Your task to perform on an android device: turn off priority inbox in the gmail app Image 0: 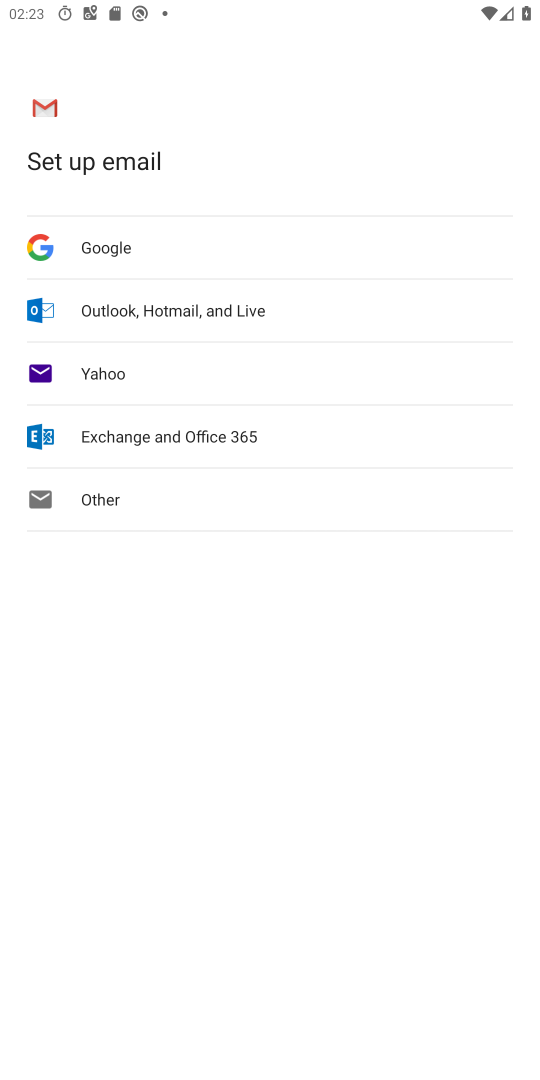
Step 0: press home button
Your task to perform on an android device: turn off priority inbox in the gmail app Image 1: 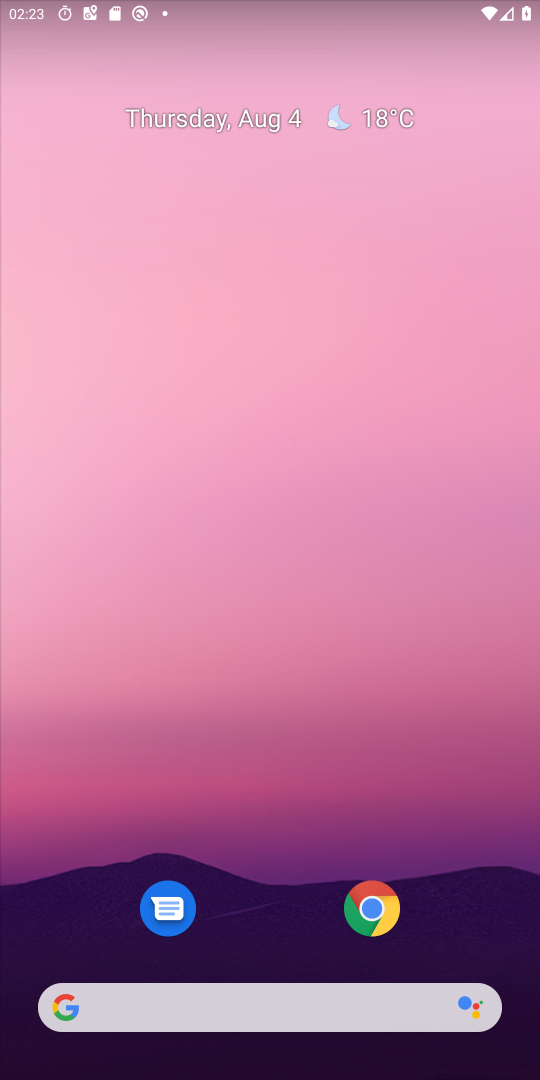
Step 1: drag from (331, 1025) to (317, 103)
Your task to perform on an android device: turn off priority inbox in the gmail app Image 2: 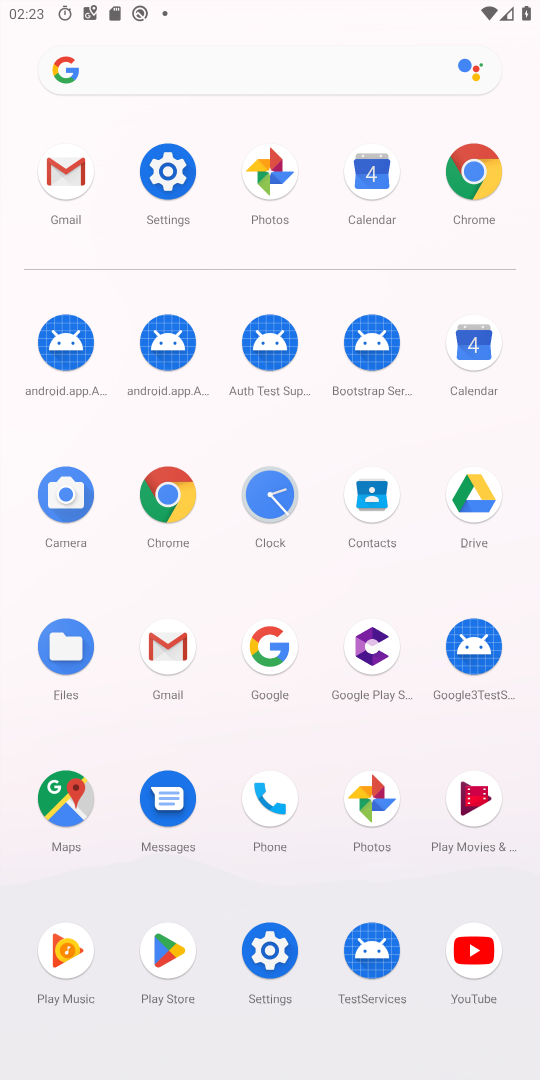
Step 2: click (160, 652)
Your task to perform on an android device: turn off priority inbox in the gmail app Image 3: 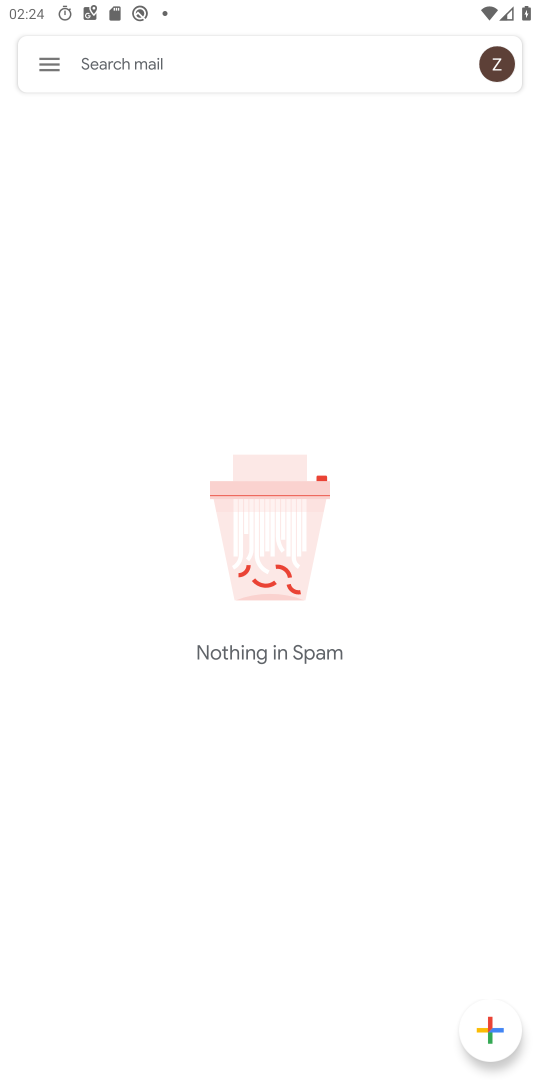
Step 3: click (51, 69)
Your task to perform on an android device: turn off priority inbox in the gmail app Image 4: 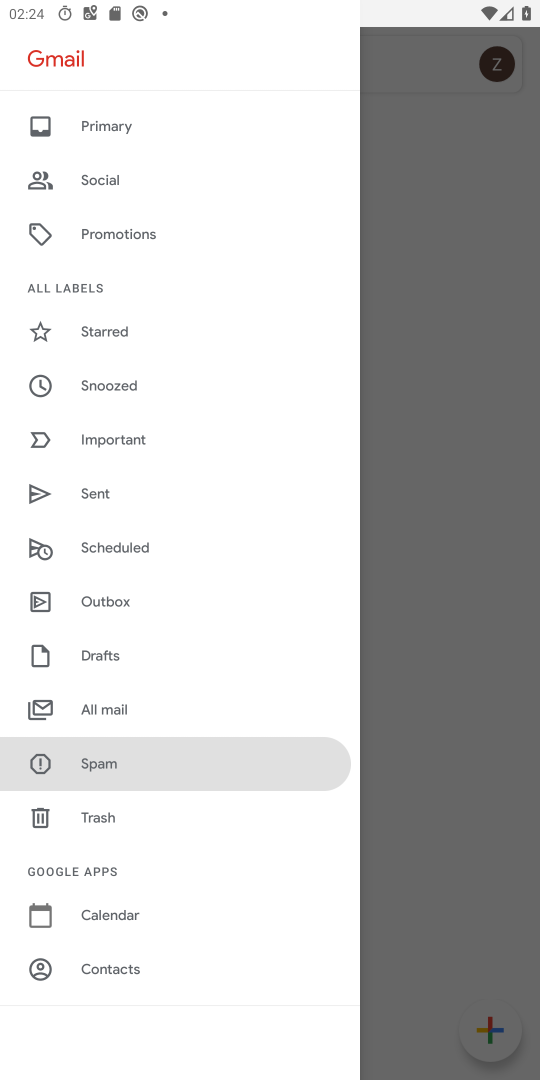
Step 4: drag from (136, 963) to (181, 845)
Your task to perform on an android device: turn off priority inbox in the gmail app Image 5: 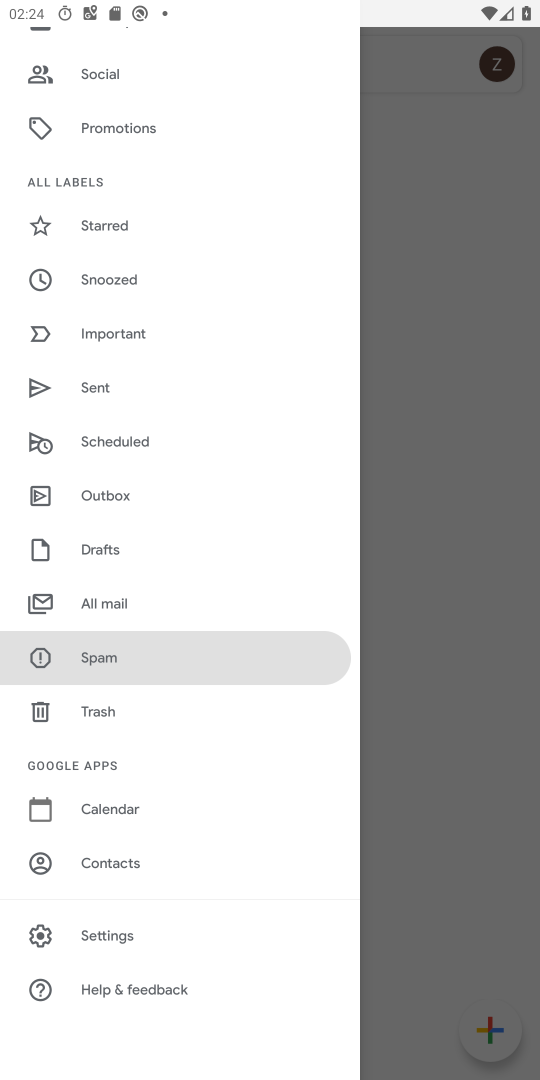
Step 5: click (152, 939)
Your task to perform on an android device: turn off priority inbox in the gmail app Image 6: 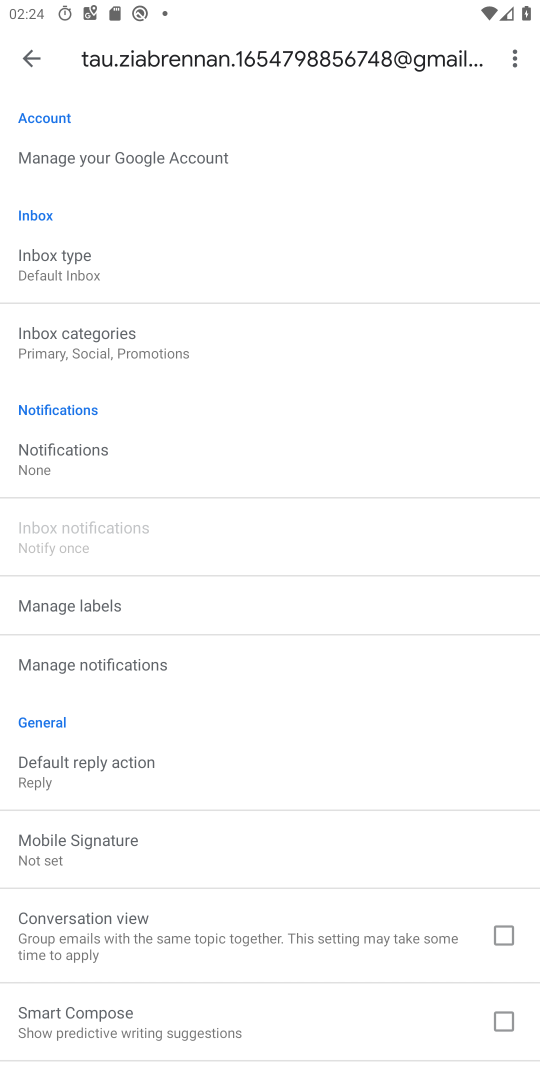
Step 6: click (112, 267)
Your task to perform on an android device: turn off priority inbox in the gmail app Image 7: 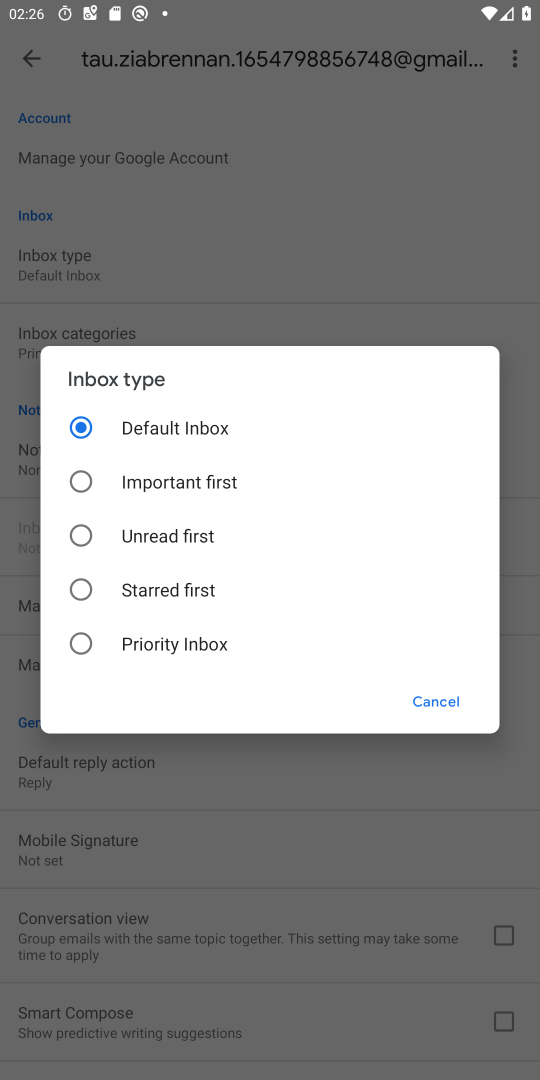
Step 7: task complete